Your task to perform on an android device: turn on priority inbox in the gmail app Image 0: 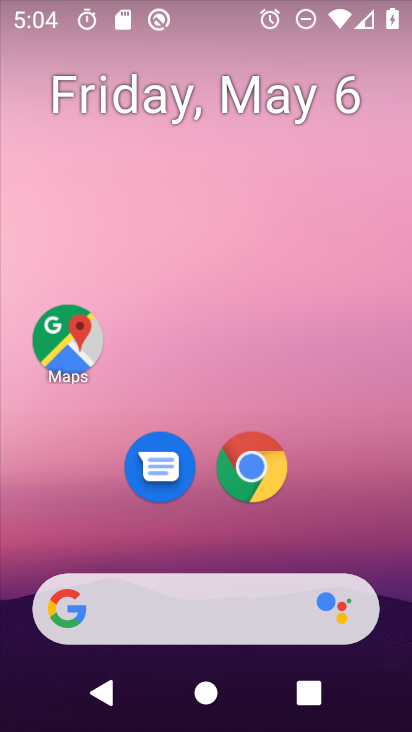
Step 0: drag from (284, 534) to (260, 104)
Your task to perform on an android device: turn on priority inbox in the gmail app Image 1: 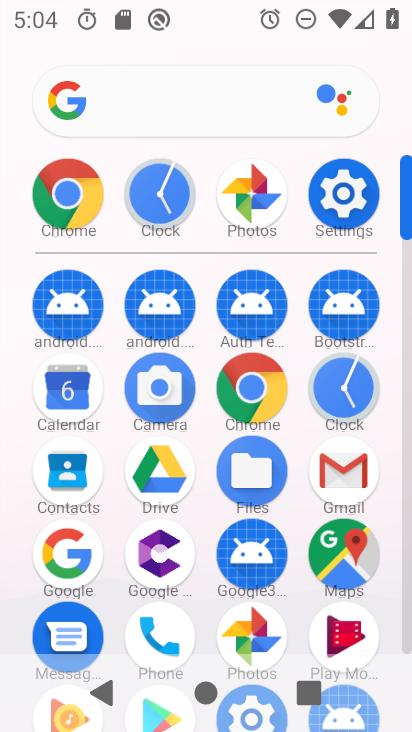
Step 1: click (343, 481)
Your task to perform on an android device: turn on priority inbox in the gmail app Image 2: 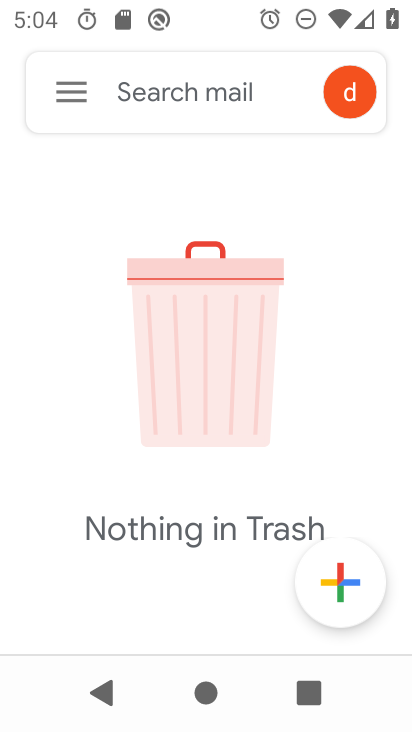
Step 2: click (102, 98)
Your task to perform on an android device: turn on priority inbox in the gmail app Image 3: 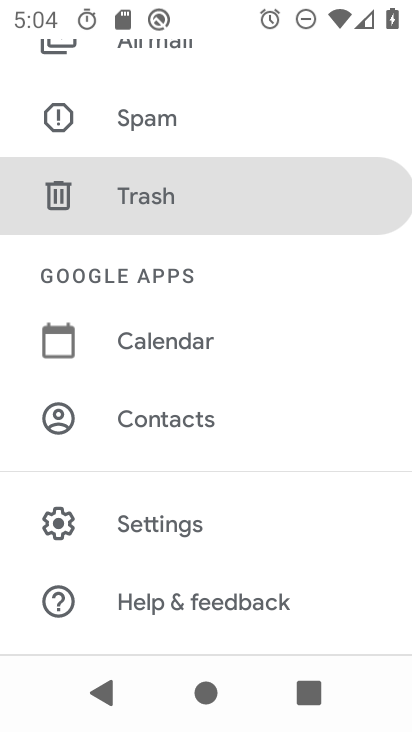
Step 3: click (195, 533)
Your task to perform on an android device: turn on priority inbox in the gmail app Image 4: 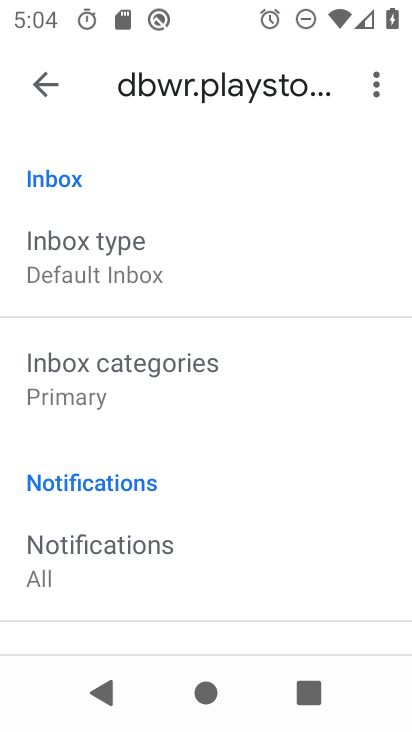
Step 4: drag from (133, 522) to (201, 179)
Your task to perform on an android device: turn on priority inbox in the gmail app Image 5: 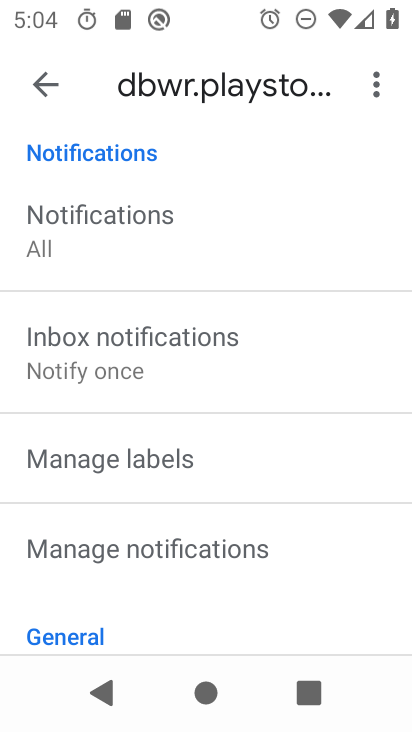
Step 5: drag from (132, 286) to (114, 592)
Your task to perform on an android device: turn on priority inbox in the gmail app Image 6: 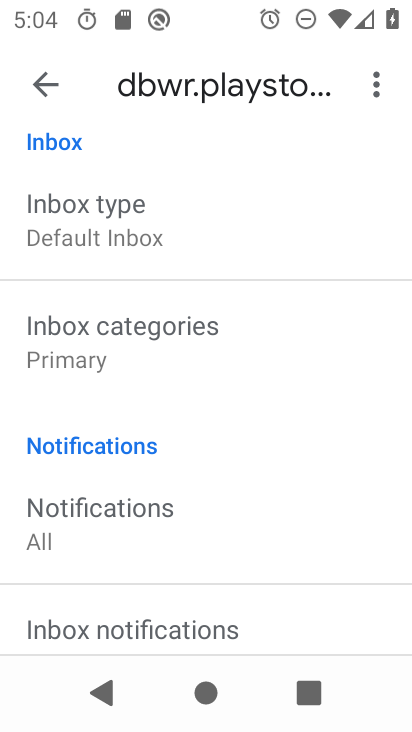
Step 6: click (101, 227)
Your task to perform on an android device: turn on priority inbox in the gmail app Image 7: 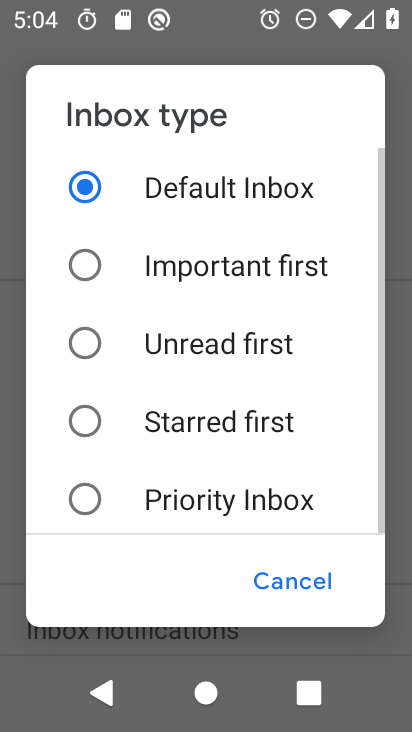
Step 7: click (93, 494)
Your task to perform on an android device: turn on priority inbox in the gmail app Image 8: 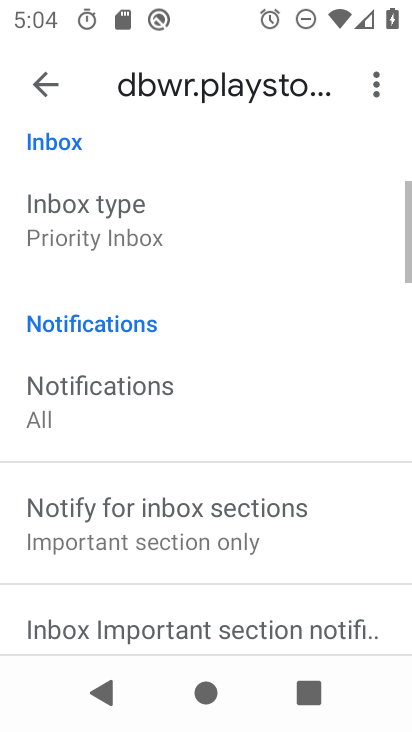
Step 8: task complete